Your task to perform on an android device: Search for vegetarian restaurants on Maps Image 0: 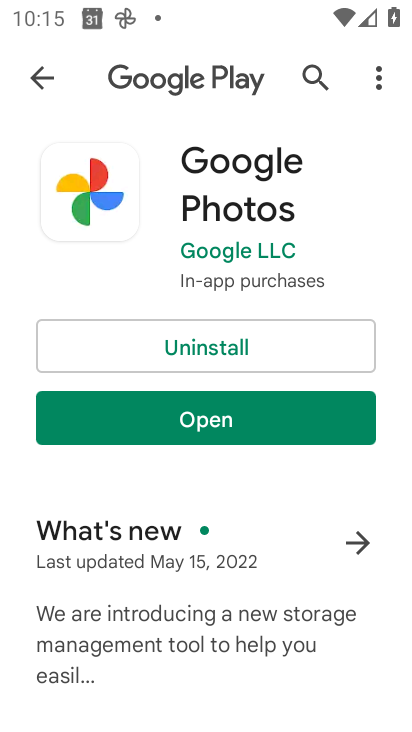
Step 0: press home button
Your task to perform on an android device: Search for vegetarian restaurants on Maps Image 1: 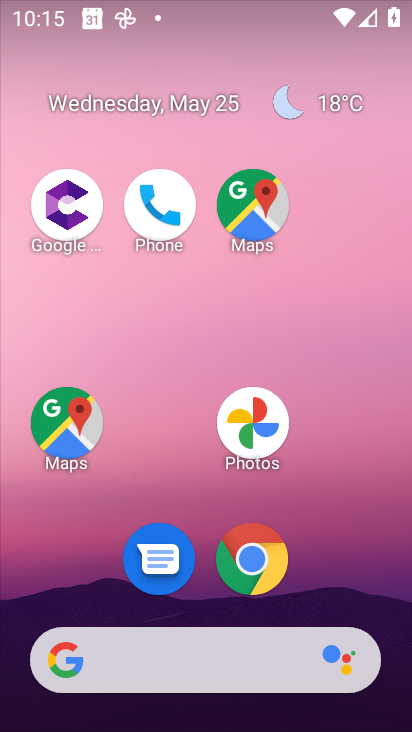
Step 1: click (73, 410)
Your task to perform on an android device: Search for vegetarian restaurants on Maps Image 2: 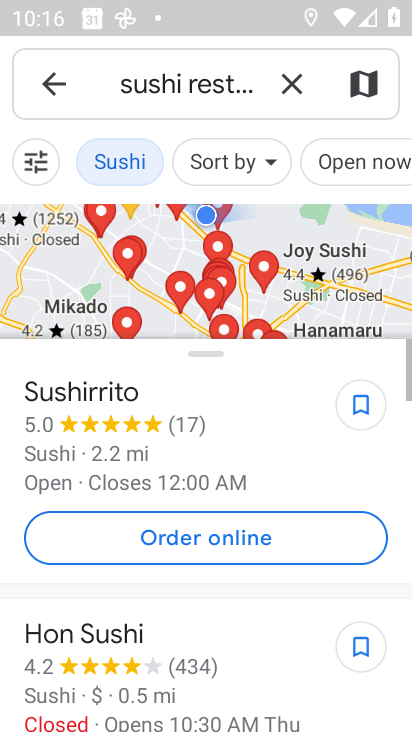
Step 2: click (290, 91)
Your task to perform on an android device: Search for vegetarian restaurants on Maps Image 3: 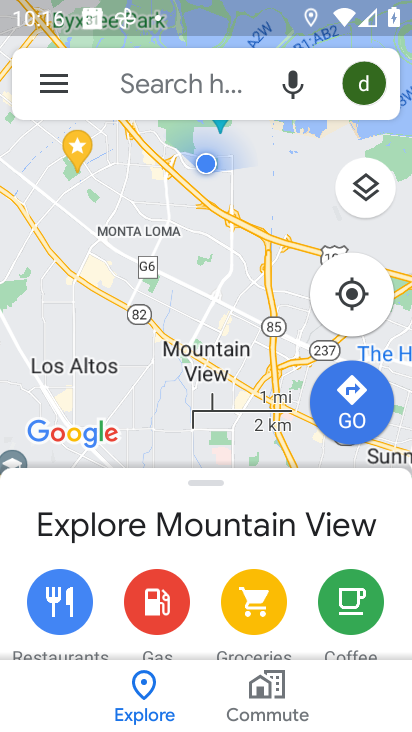
Step 3: click (224, 92)
Your task to perform on an android device: Search for vegetarian restaurants on Maps Image 4: 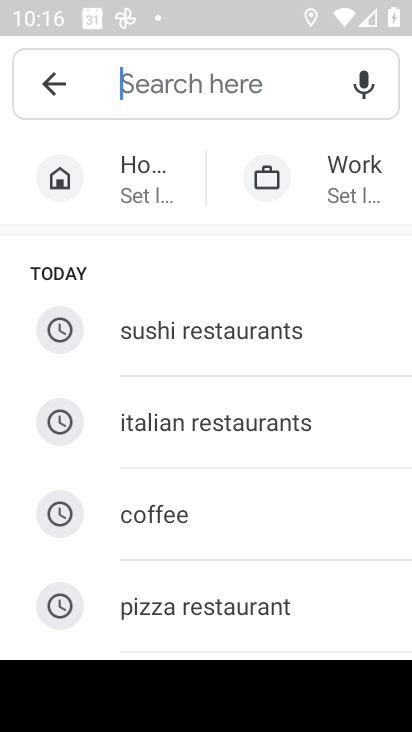
Step 4: type "vegetarian restaurants"
Your task to perform on an android device: Search for vegetarian restaurants on Maps Image 5: 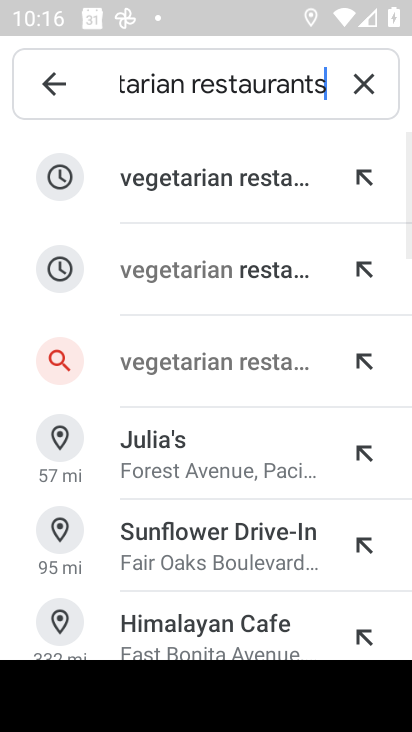
Step 5: click (266, 177)
Your task to perform on an android device: Search for vegetarian restaurants on Maps Image 6: 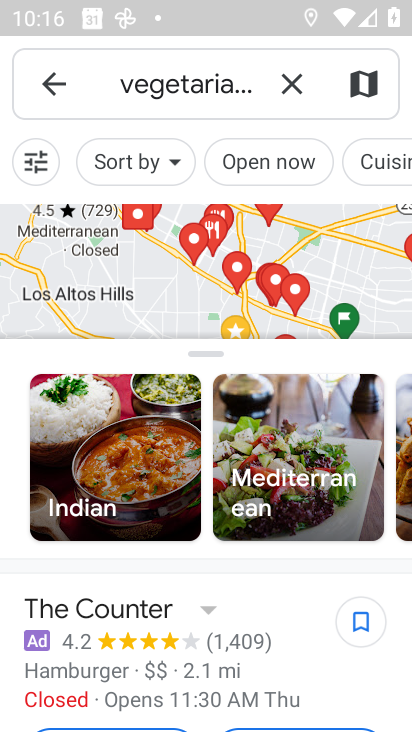
Step 6: task complete